Your task to perform on an android device: turn on location history Image 0: 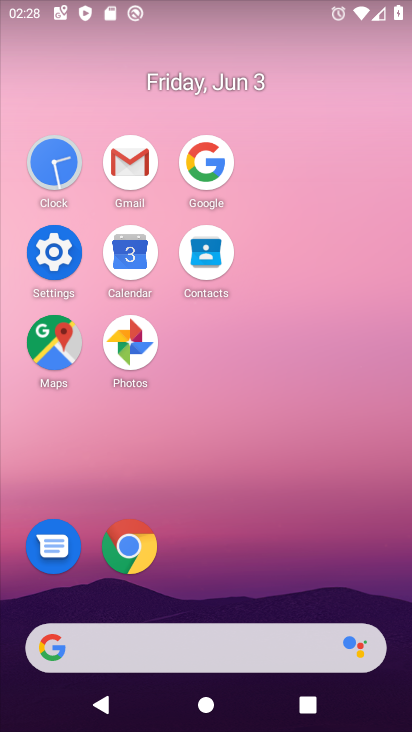
Step 0: click (62, 270)
Your task to perform on an android device: turn on location history Image 1: 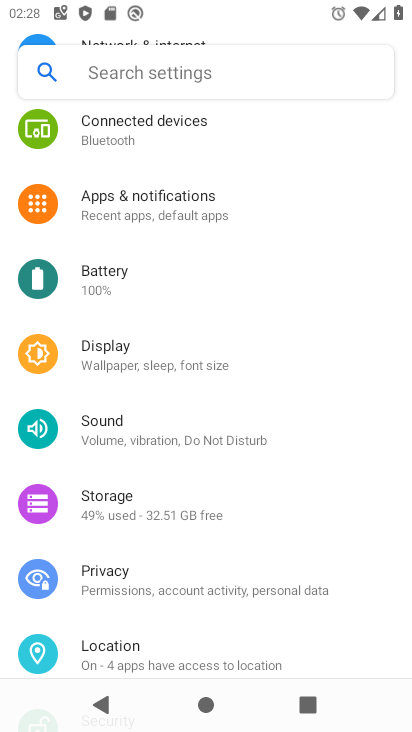
Step 1: click (173, 628)
Your task to perform on an android device: turn on location history Image 2: 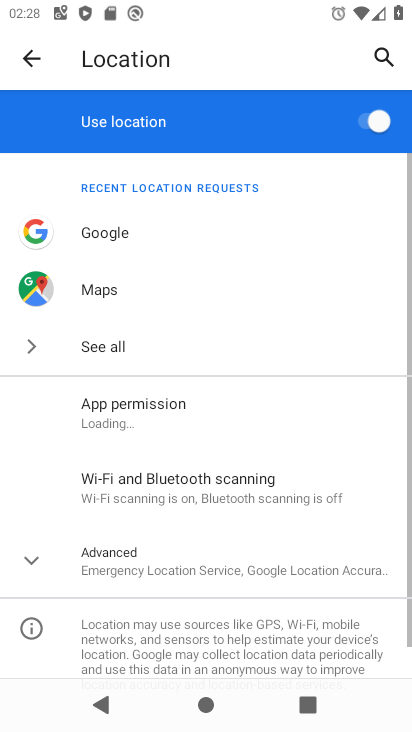
Step 2: click (172, 548)
Your task to perform on an android device: turn on location history Image 3: 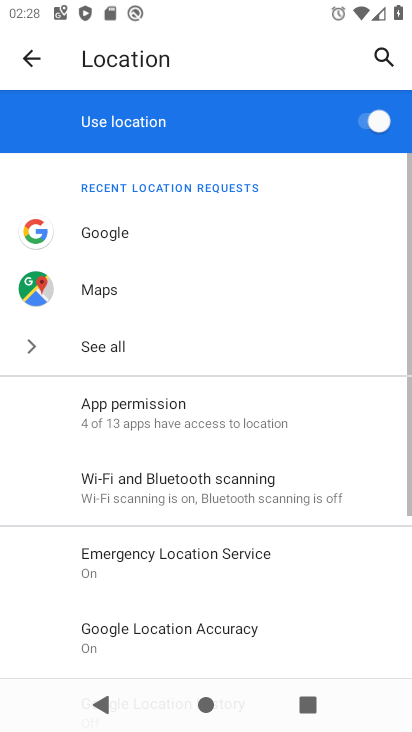
Step 3: drag from (172, 548) to (219, 155)
Your task to perform on an android device: turn on location history Image 4: 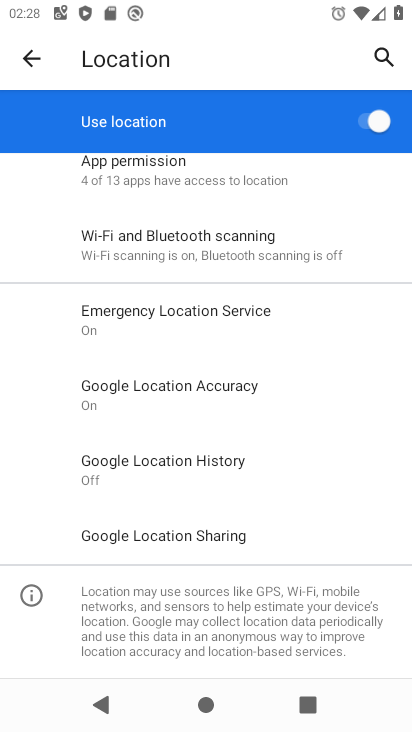
Step 4: click (193, 469)
Your task to perform on an android device: turn on location history Image 5: 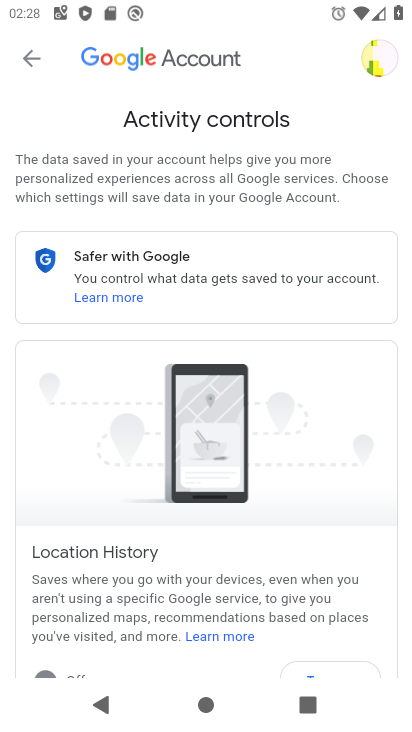
Step 5: drag from (318, 400) to (295, 193)
Your task to perform on an android device: turn on location history Image 6: 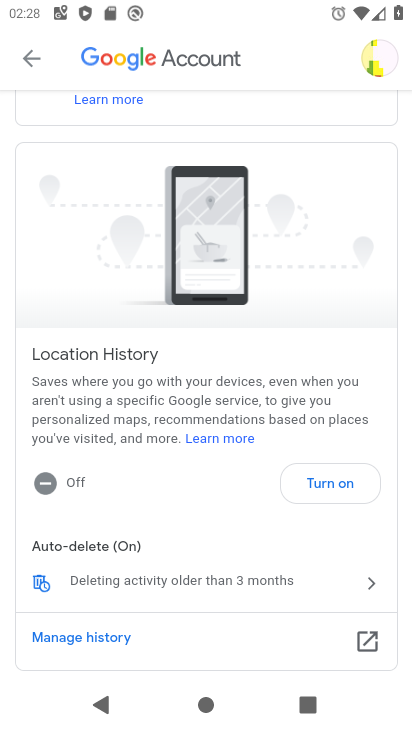
Step 6: click (349, 483)
Your task to perform on an android device: turn on location history Image 7: 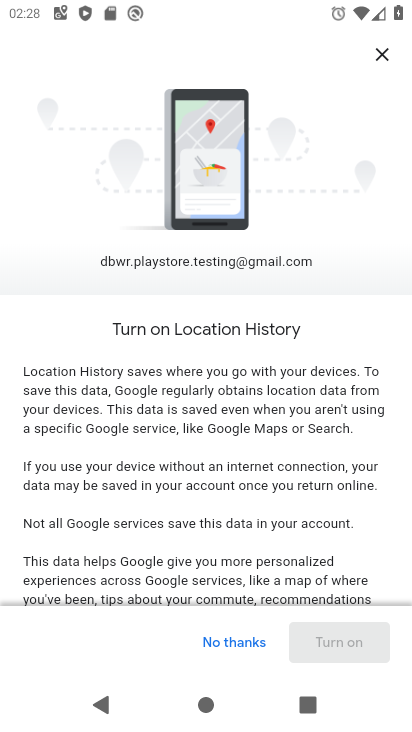
Step 7: drag from (302, 567) to (322, 124)
Your task to perform on an android device: turn on location history Image 8: 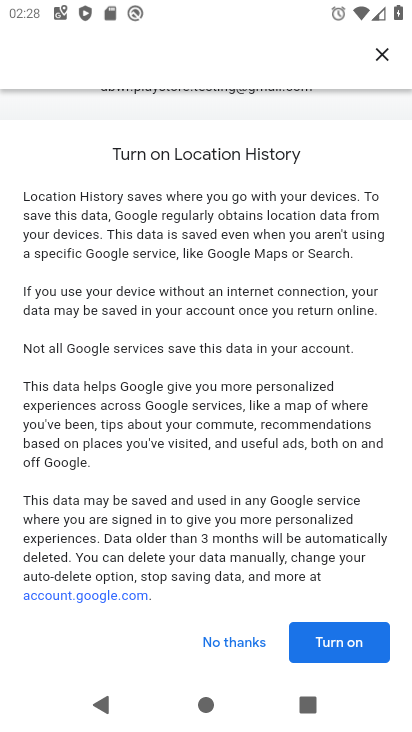
Step 8: click (344, 652)
Your task to perform on an android device: turn on location history Image 9: 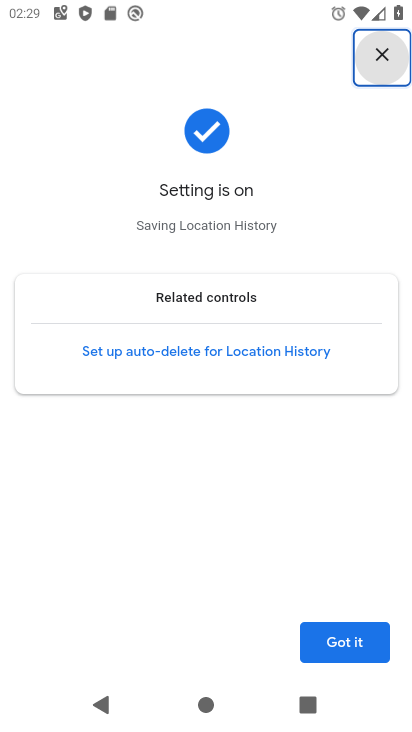
Step 9: click (351, 639)
Your task to perform on an android device: turn on location history Image 10: 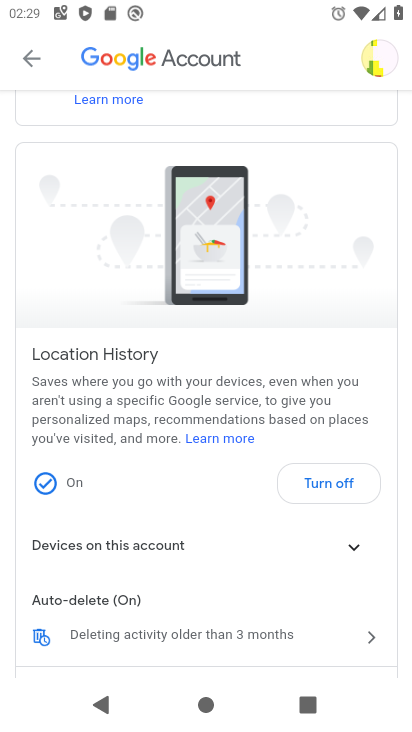
Step 10: task complete